Your task to perform on an android device: turn pop-ups off in chrome Image 0: 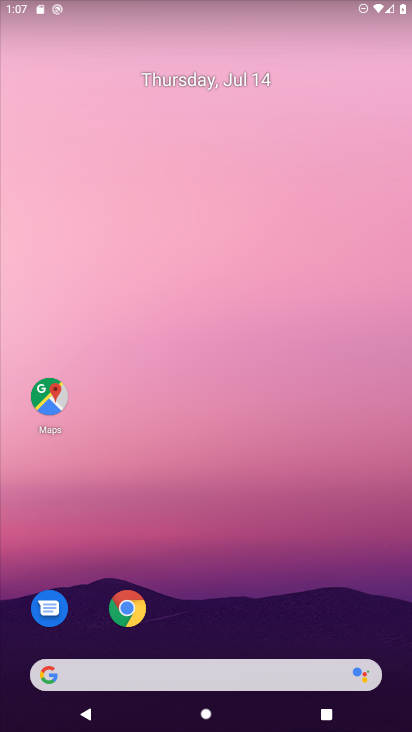
Step 0: drag from (225, 722) to (224, 13)
Your task to perform on an android device: turn pop-ups off in chrome Image 1: 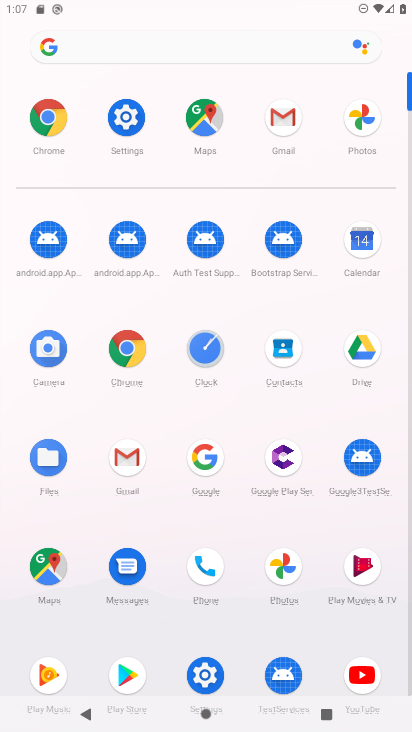
Step 1: click (130, 346)
Your task to perform on an android device: turn pop-ups off in chrome Image 2: 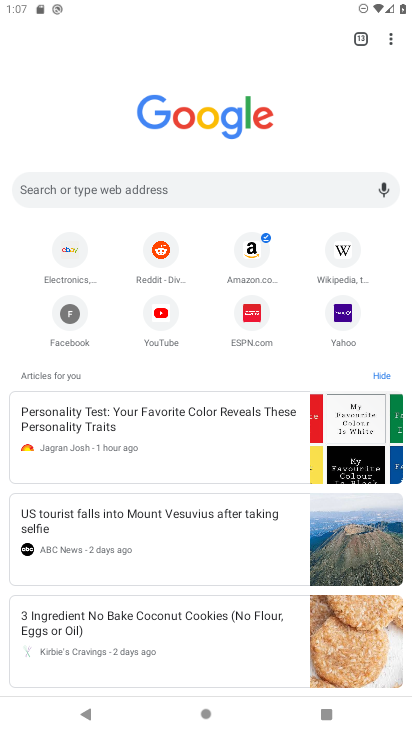
Step 2: click (391, 40)
Your task to perform on an android device: turn pop-ups off in chrome Image 3: 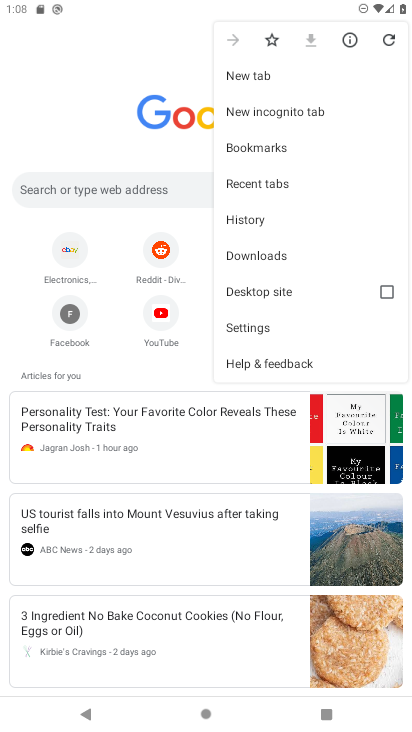
Step 3: click (239, 325)
Your task to perform on an android device: turn pop-ups off in chrome Image 4: 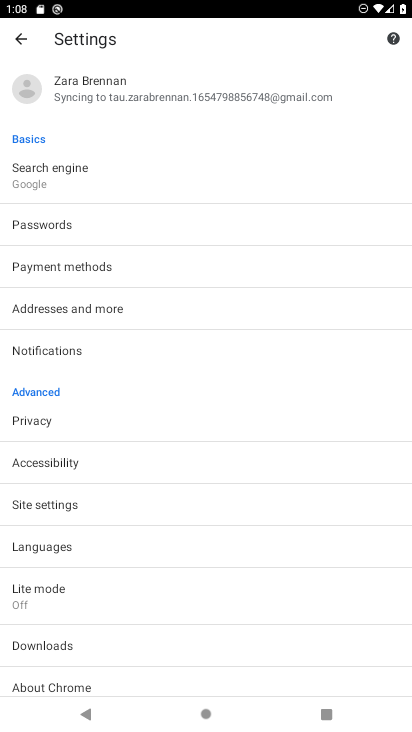
Step 4: click (45, 506)
Your task to perform on an android device: turn pop-ups off in chrome Image 5: 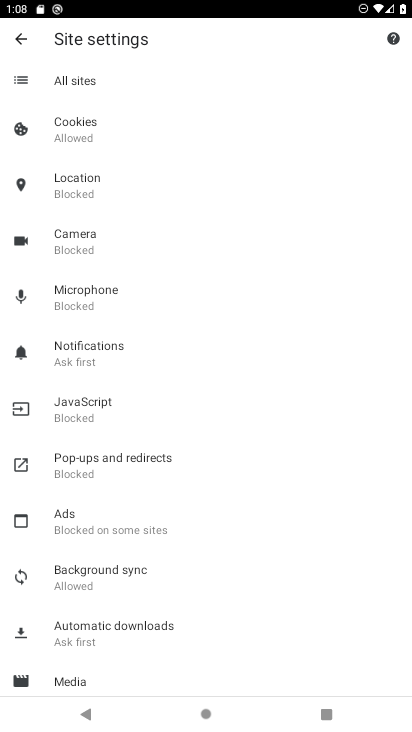
Step 5: click (70, 466)
Your task to perform on an android device: turn pop-ups off in chrome Image 6: 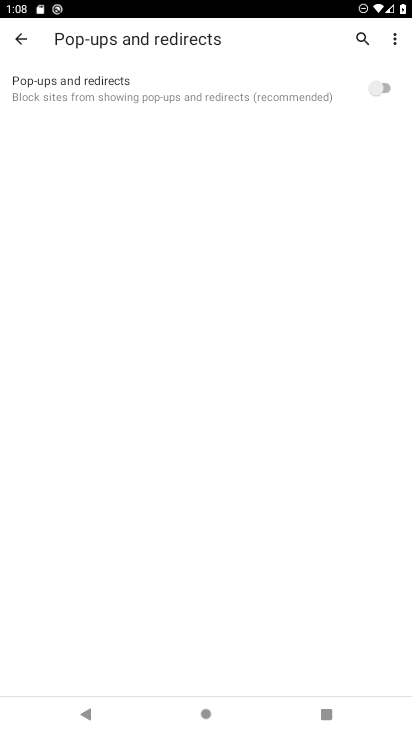
Step 6: task complete